Your task to perform on an android device: see tabs open on other devices in the chrome app Image 0: 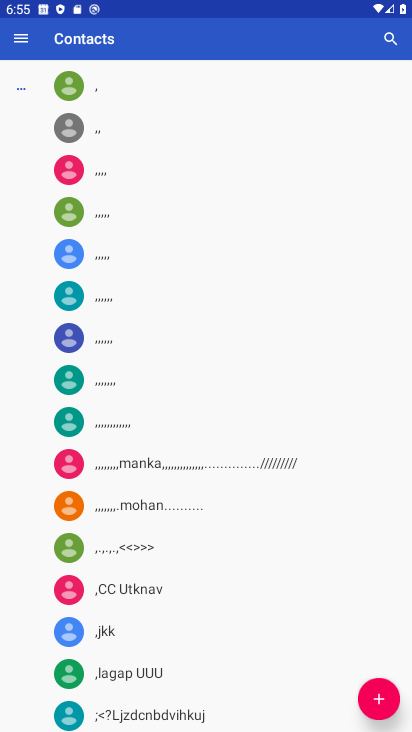
Step 0: press home button
Your task to perform on an android device: see tabs open on other devices in the chrome app Image 1: 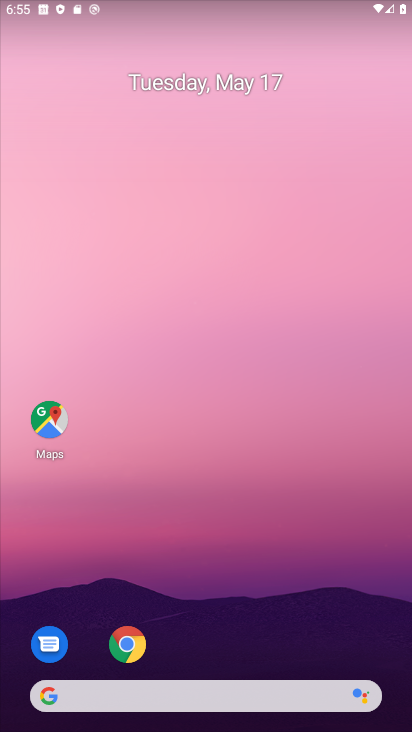
Step 1: drag from (334, 630) to (369, 17)
Your task to perform on an android device: see tabs open on other devices in the chrome app Image 2: 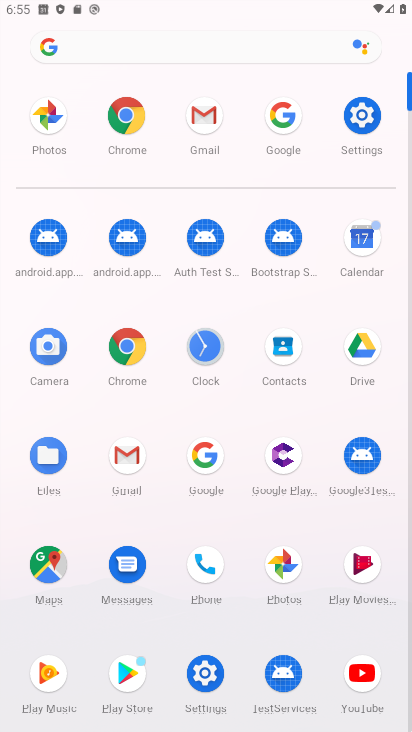
Step 2: click (130, 124)
Your task to perform on an android device: see tabs open on other devices in the chrome app Image 3: 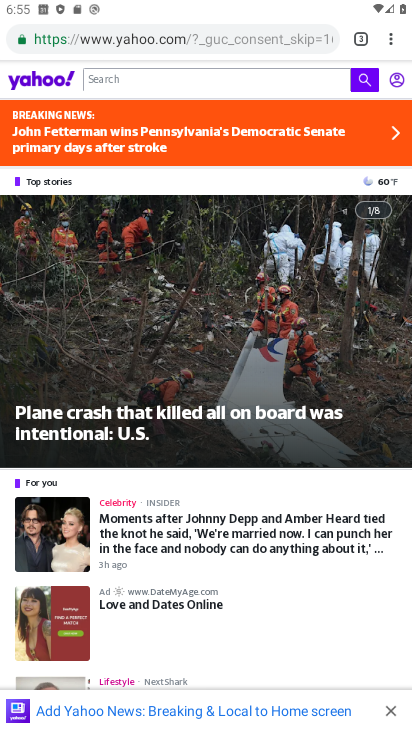
Step 3: press back button
Your task to perform on an android device: see tabs open on other devices in the chrome app Image 4: 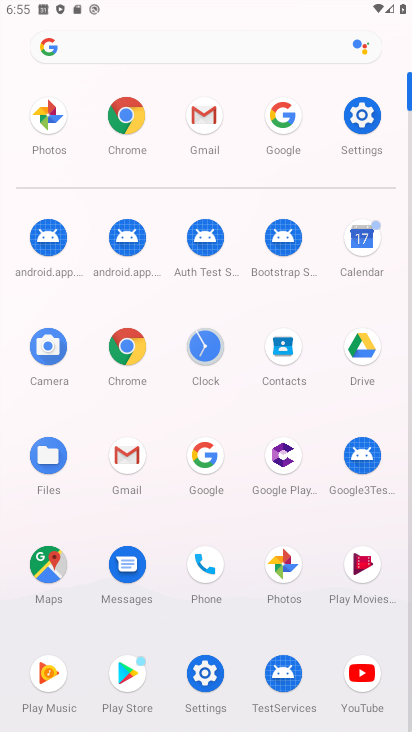
Step 4: click (127, 114)
Your task to perform on an android device: see tabs open on other devices in the chrome app Image 5: 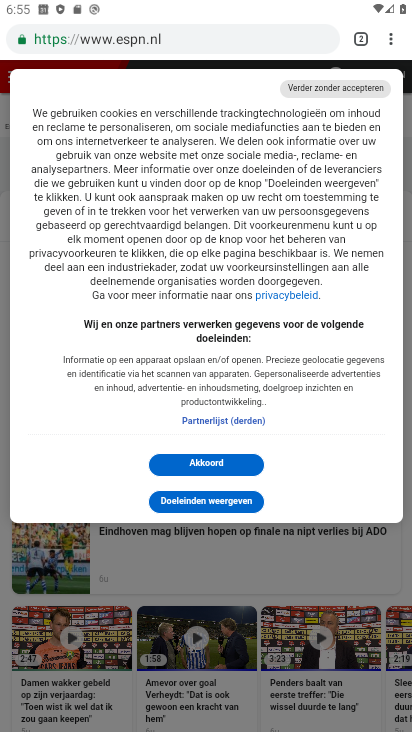
Step 5: task complete